Your task to perform on an android device: change keyboard looks Image 0: 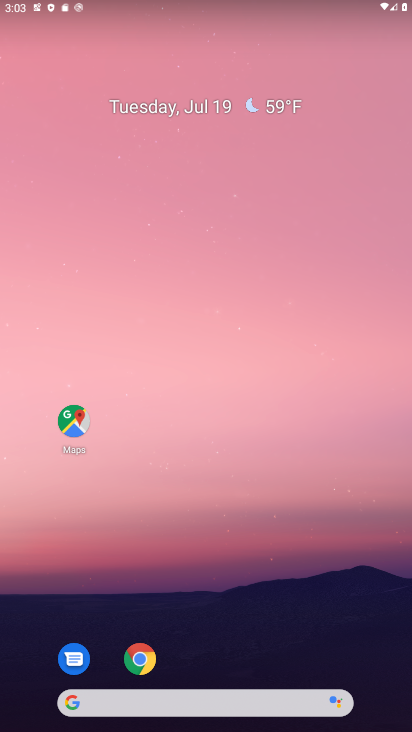
Step 0: drag from (214, 698) to (360, 50)
Your task to perform on an android device: change keyboard looks Image 1: 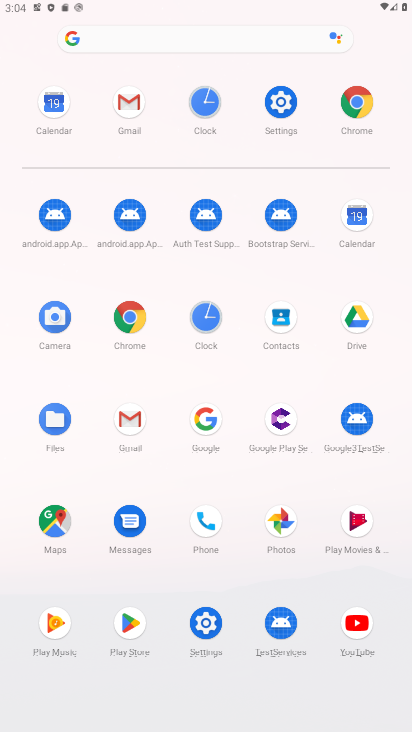
Step 1: click (283, 104)
Your task to perform on an android device: change keyboard looks Image 2: 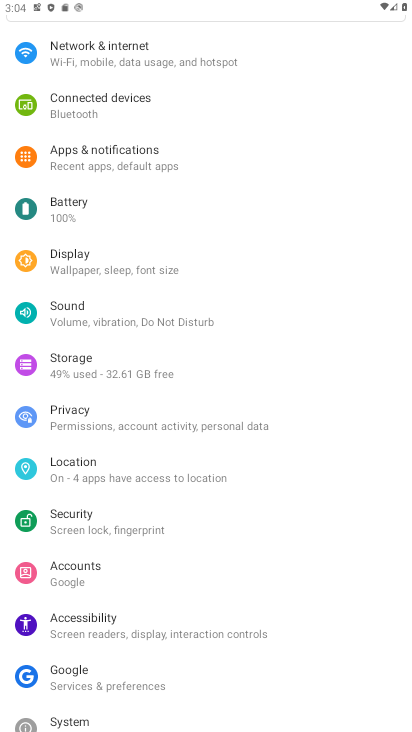
Step 2: drag from (115, 597) to (208, 464)
Your task to perform on an android device: change keyboard looks Image 3: 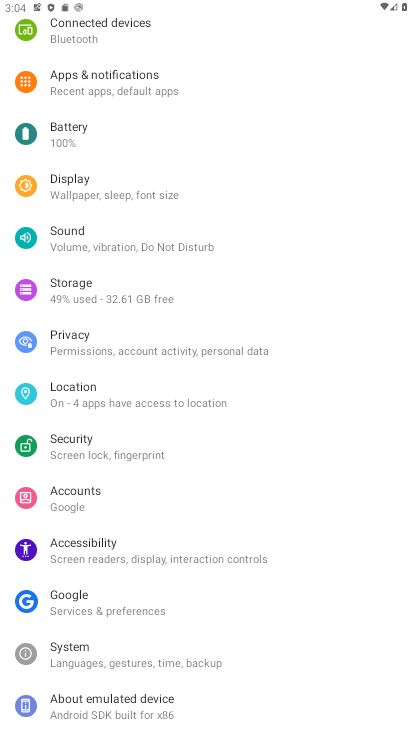
Step 3: click (101, 661)
Your task to perform on an android device: change keyboard looks Image 4: 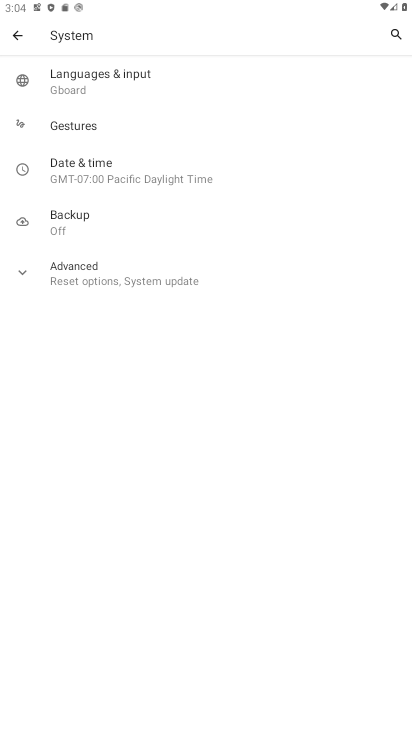
Step 4: click (122, 71)
Your task to perform on an android device: change keyboard looks Image 5: 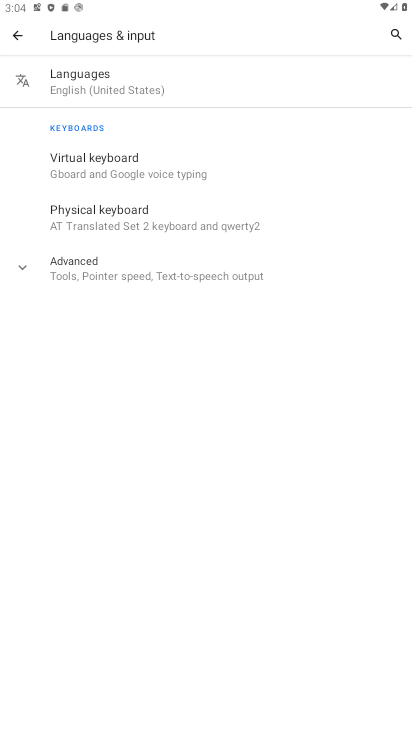
Step 5: click (96, 167)
Your task to perform on an android device: change keyboard looks Image 6: 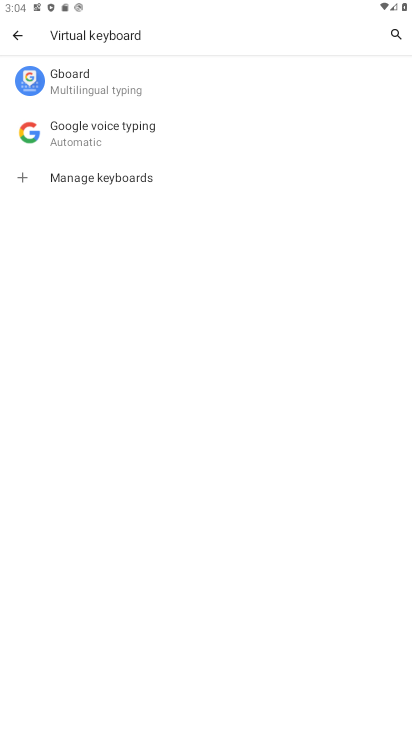
Step 6: click (84, 87)
Your task to perform on an android device: change keyboard looks Image 7: 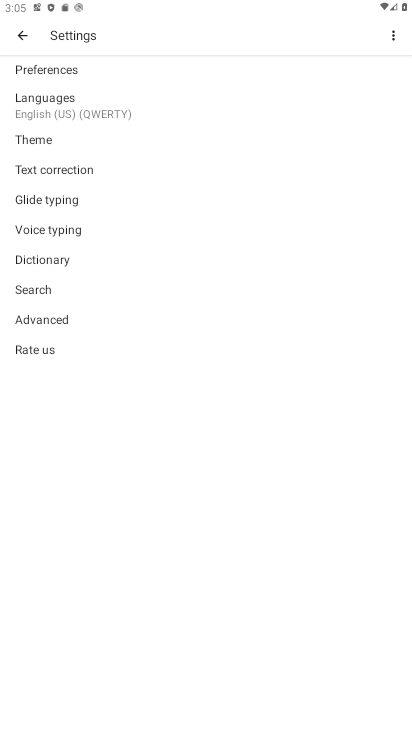
Step 7: click (44, 143)
Your task to perform on an android device: change keyboard looks Image 8: 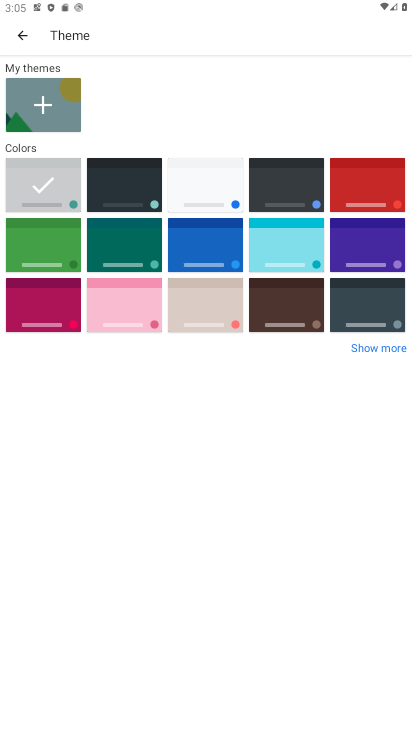
Step 8: click (230, 241)
Your task to perform on an android device: change keyboard looks Image 9: 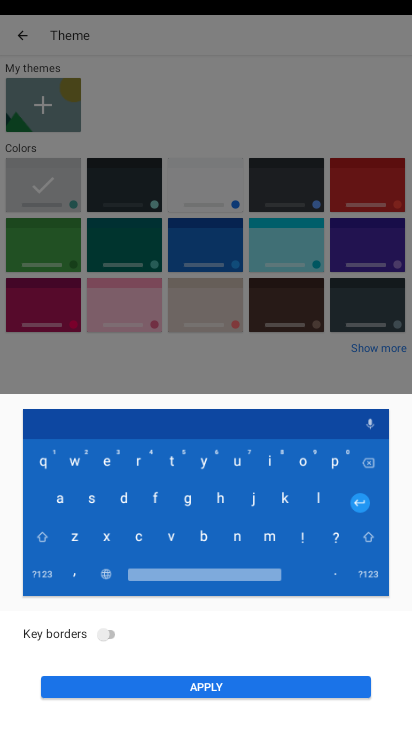
Step 9: click (106, 638)
Your task to perform on an android device: change keyboard looks Image 10: 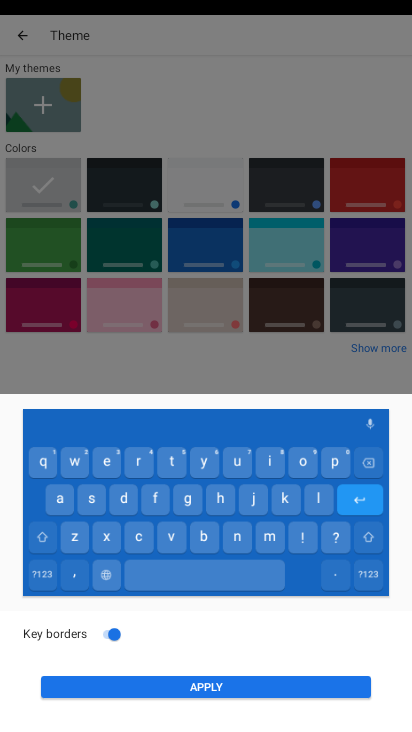
Step 10: click (209, 687)
Your task to perform on an android device: change keyboard looks Image 11: 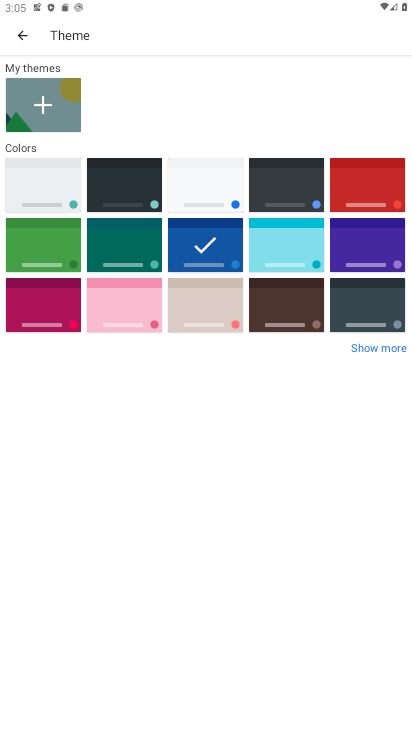
Step 11: task complete